Your task to perform on an android device: When is my next appointment? Image 0: 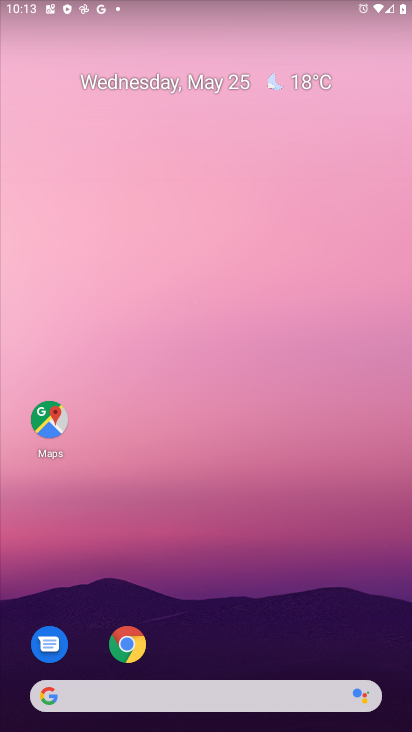
Step 0: press home button
Your task to perform on an android device: When is my next appointment? Image 1: 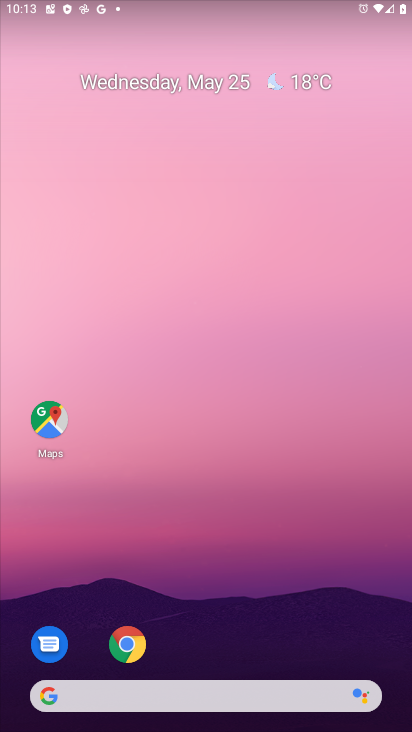
Step 1: drag from (218, 655) to (190, 0)
Your task to perform on an android device: When is my next appointment? Image 2: 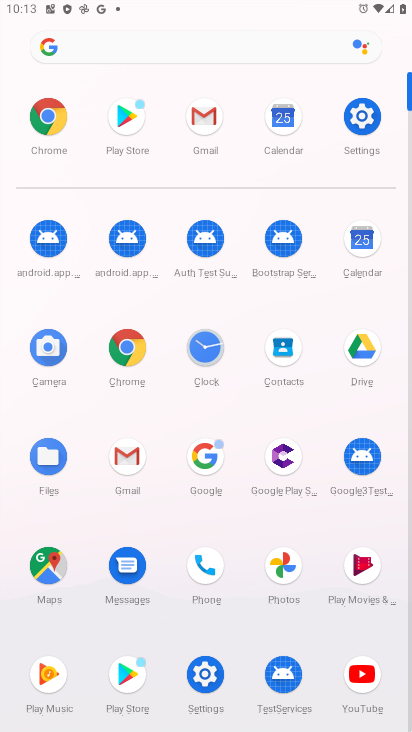
Step 2: click (284, 118)
Your task to perform on an android device: When is my next appointment? Image 3: 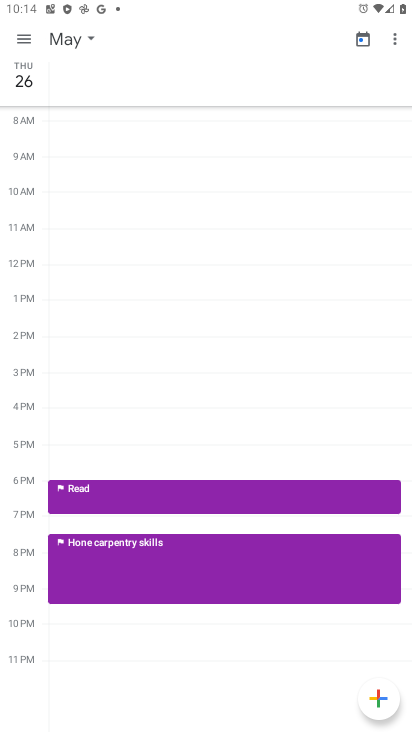
Step 3: click (28, 77)
Your task to perform on an android device: When is my next appointment? Image 4: 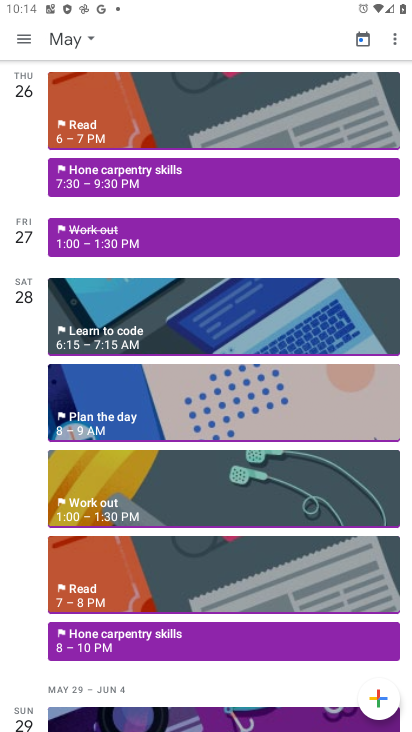
Step 4: task complete